Your task to perform on an android device: Check the settings for the Twitter app Image 0: 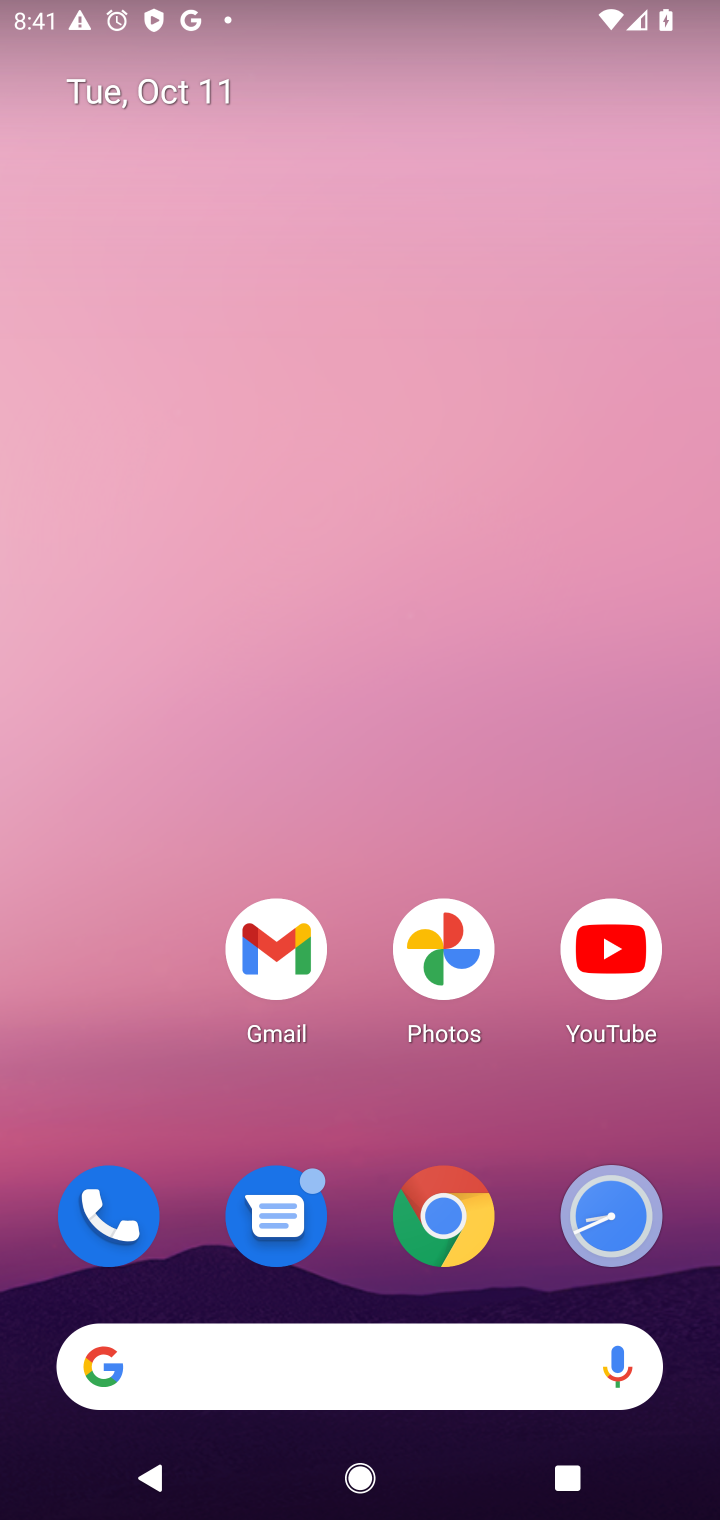
Step 0: drag from (421, 1363) to (449, 388)
Your task to perform on an android device: Check the settings for the Twitter app Image 1: 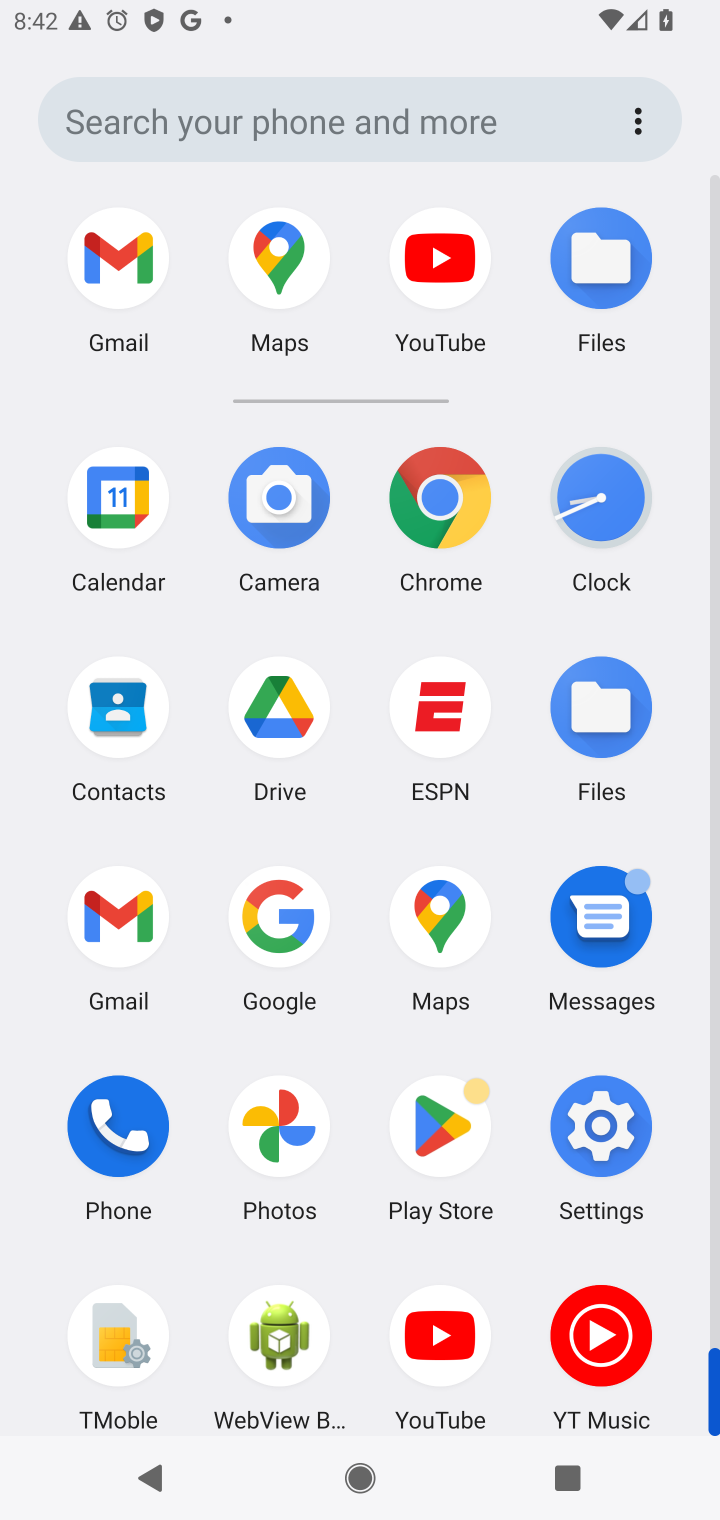
Step 1: task complete